Your task to perform on an android device: change the clock display to show seconds Image 0: 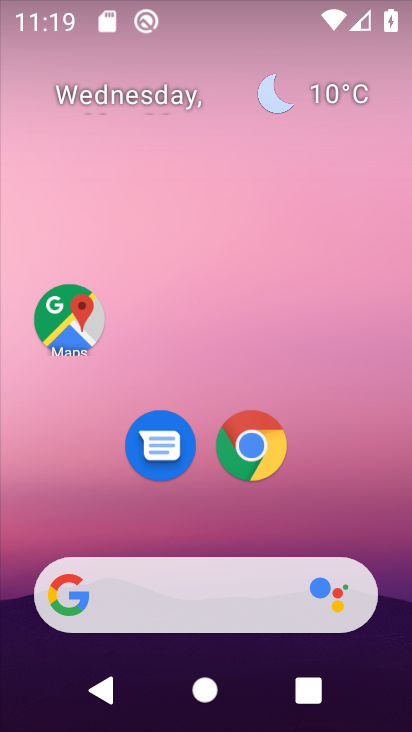
Step 0: click (169, 252)
Your task to perform on an android device: change the clock display to show seconds Image 1: 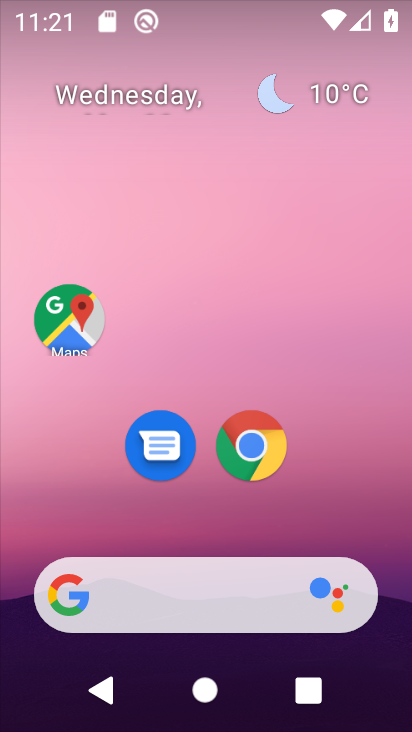
Step 1: drag from (167, 538) to (253, 85)
Your task to perform on an android device: change the clock display to show seconds Image 2: 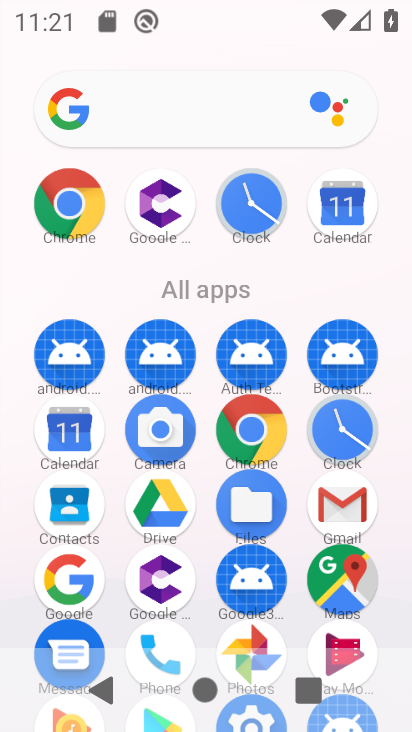
Step 2: click (333, 421)
Your task to perform on an android device: change the clock display to show seconds Image 3: 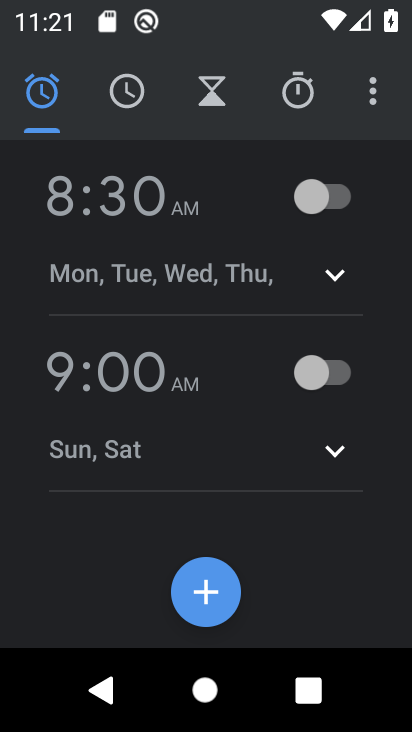
Step 3: click (369, 96)
Your task to perform on an android device: change the clock display to show seconds Image 4: 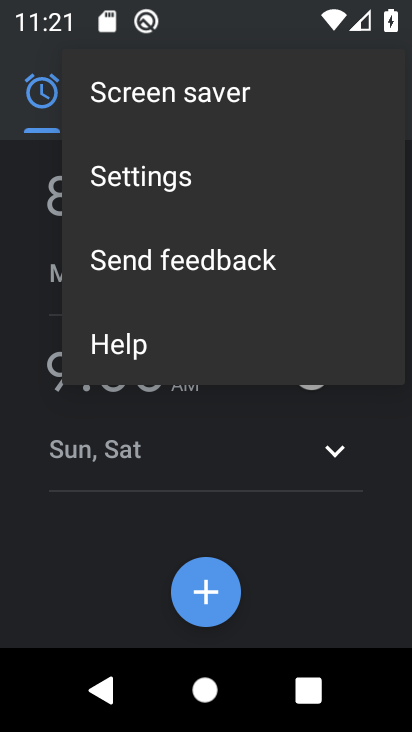
Step 4: click (219, 163)
Your task to perform on an android device: change the clock display to show seconds Image 5: 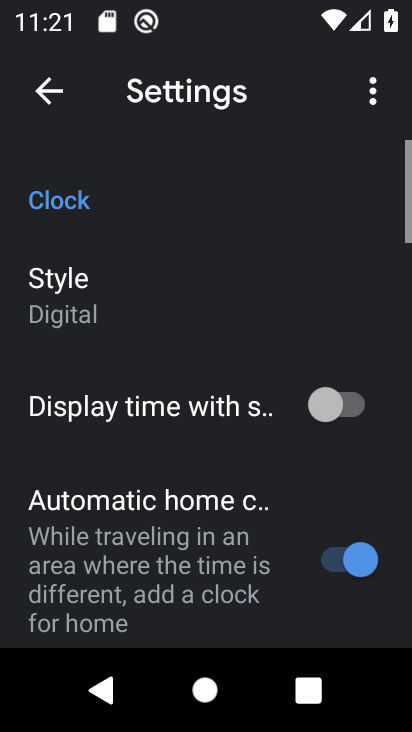
Step 5: click (115, 283)
Your task to perform on an android device: change the clock display to show seconds Image 6: 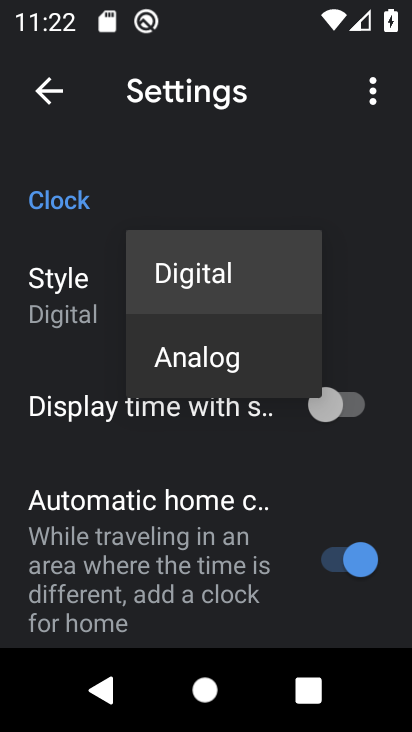
Step 6: click (219, 267)
Your task to perform on an android device: change the clock display to show seconds Image 7: 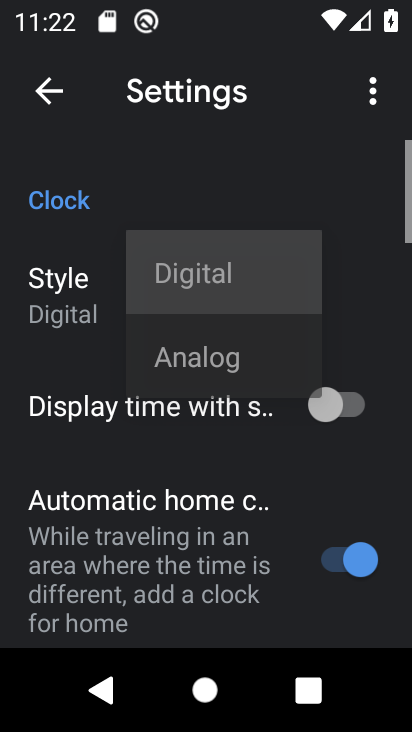
Step 7: click (336, 397)
Your task to perform on an android device: change the clock display to show seconds Image 8: 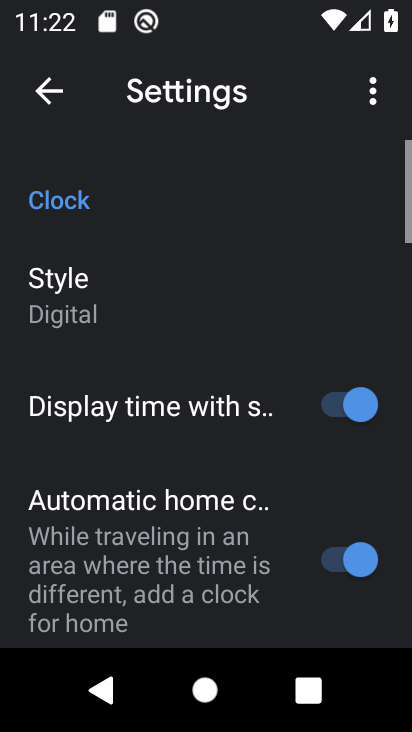
Step 8: task complete